Your task to perform on an android device: change notifications settings Image 0: 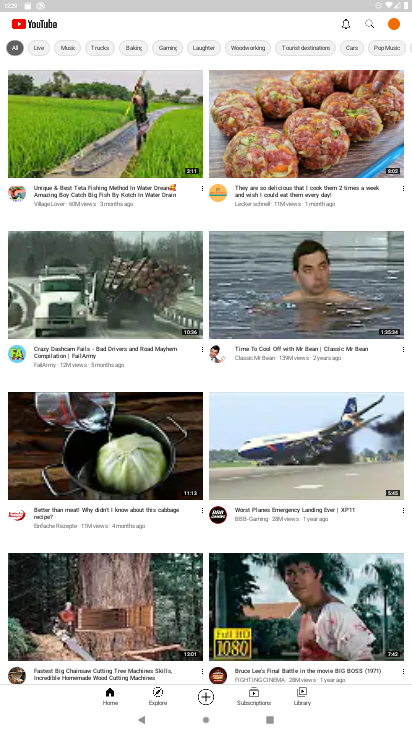
Step 0: drag from (307, 13) to (139, 720)
Your task to perform on an android device: change notifications settings Image 1: 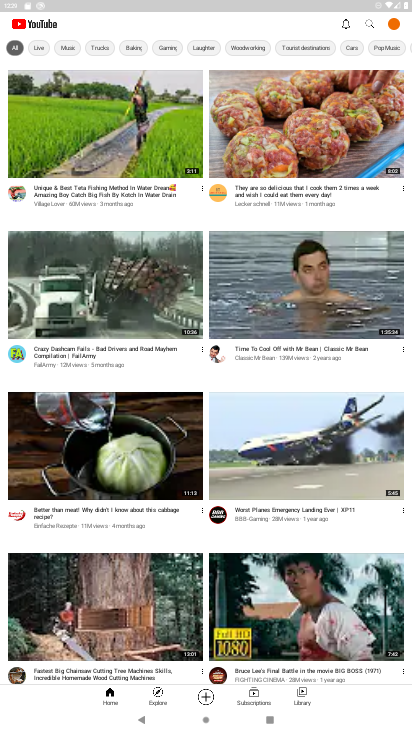
Step 1: drag from (193, 12) to (154, 471)
Your task to perform on an android device: change notifications settings Image 2: 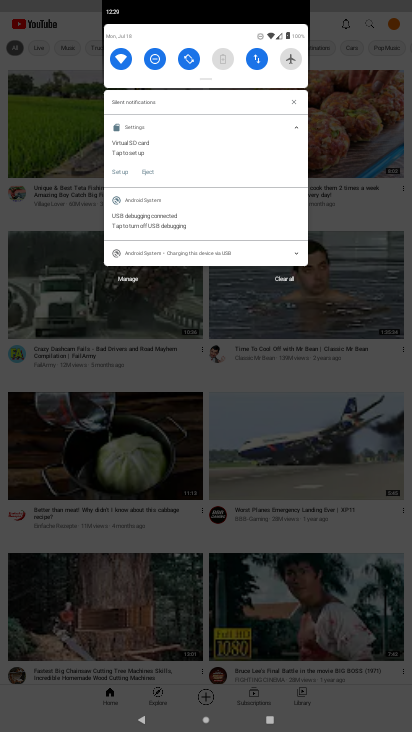
Step 2: drag from (199, 53) to (167, 589)
Your task to perform on an android device: change notifications settings Image 3: 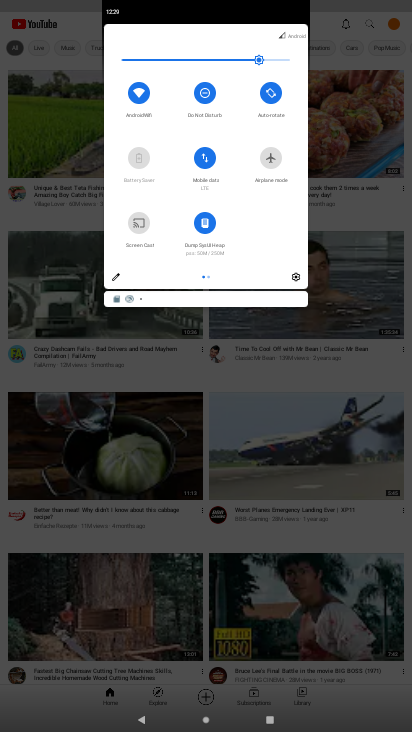
Step 3: click (293, 281)
Your task to perform on an android device: change notifications settings Image 4: 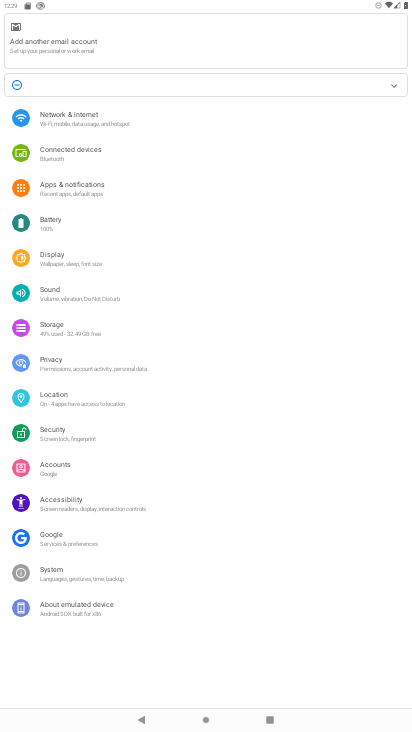
Step 4: click (89, 187)
Your task to perform on an android device: change notifications settings Image 5: 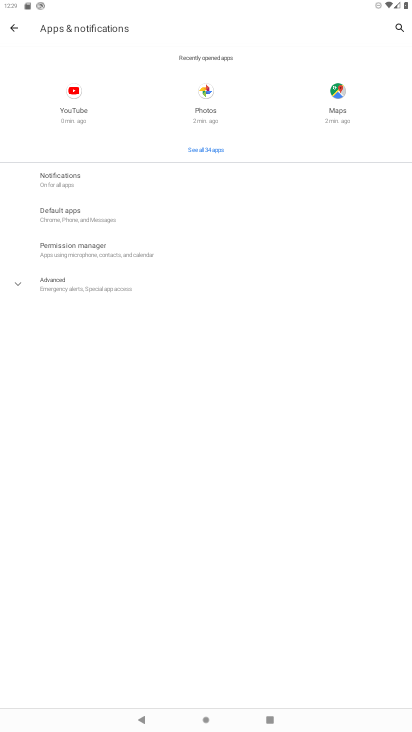
Step 5: task complete